Your task to perform on an android device: Go to Maps Image 0: 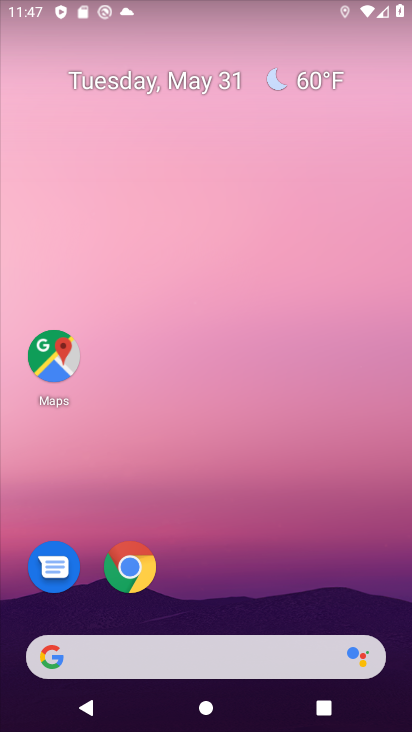
Step 0: click (34, 365)
Your task to perform on an android device: Go to Maps Image 1: 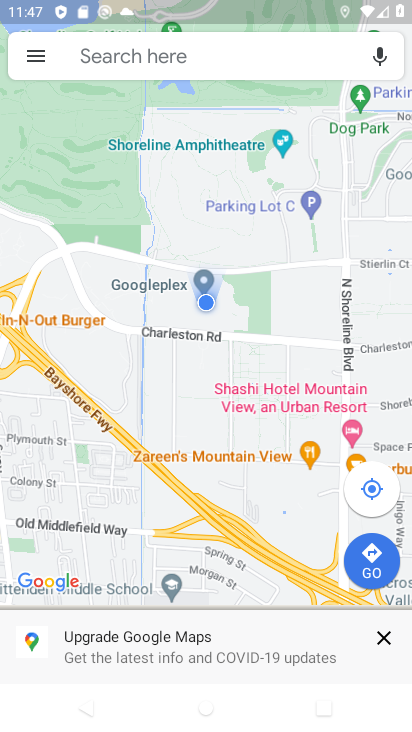
Step 1: task complete